Your task to perform on an android device: delete browsing data in the chrome app Image 0: 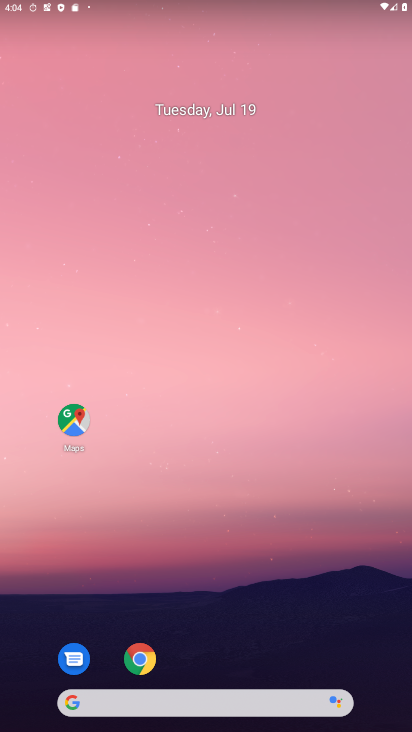
Step 0: drag from (221, 614) to (187, 58)
Your task to perform on an android device: delete browsing data in the chrome app Image 1: 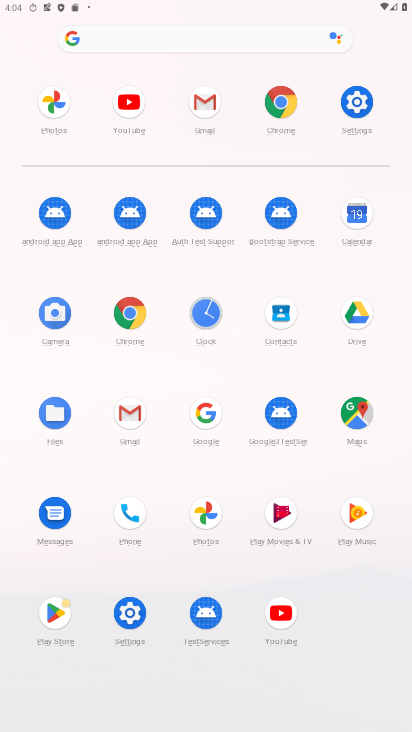
Step 1: click (286, 99)
Your task to perform on an android device: delete browsing data in the chrome app Image 2: 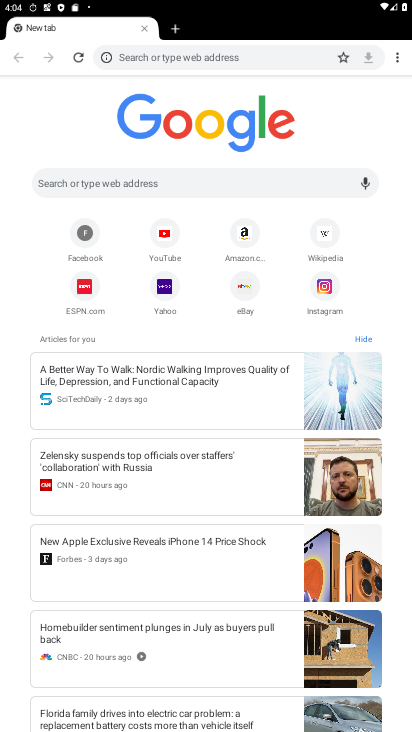
Step 2: task complete